Your task to perform on an android device: Go to sound settings Image 0: 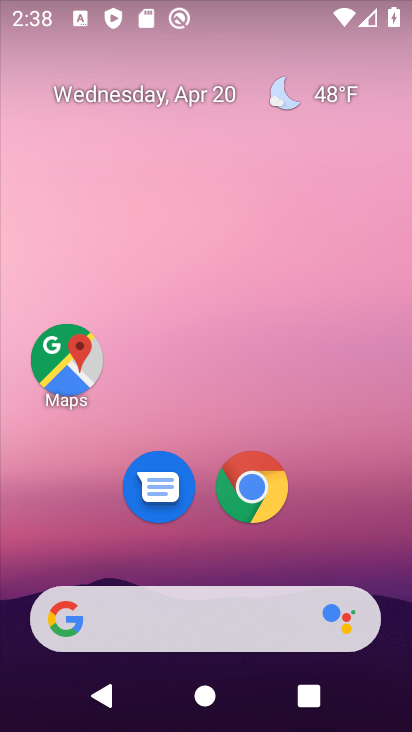
Step 0: drag from (223, 427) to (223, 218)
Your task to perform on an android device: Go to sound settings Image 1: 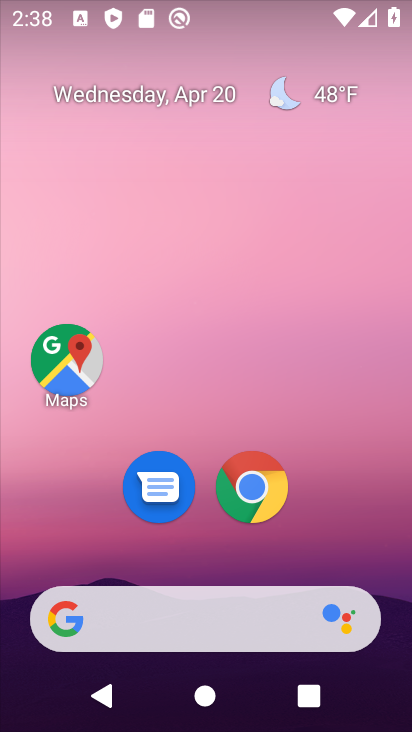
Step 1: drag from (207, 583) to (248, 126)
Your task to perform on an android device: Go to sound settings Image 2: 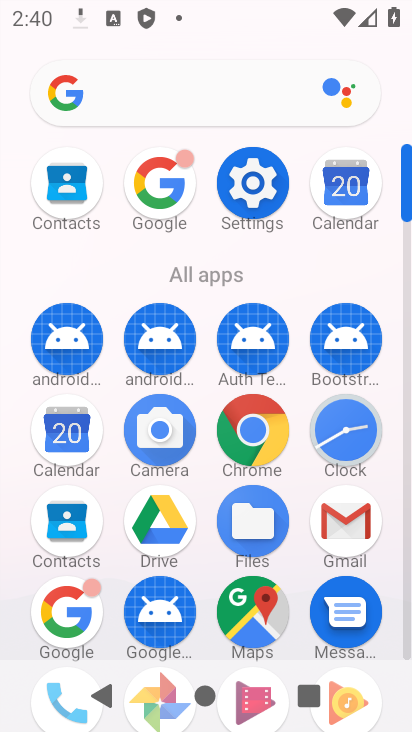
Step 2: click (270, 173)
Your task to perform on an android device: Go to sound settings Image 3: 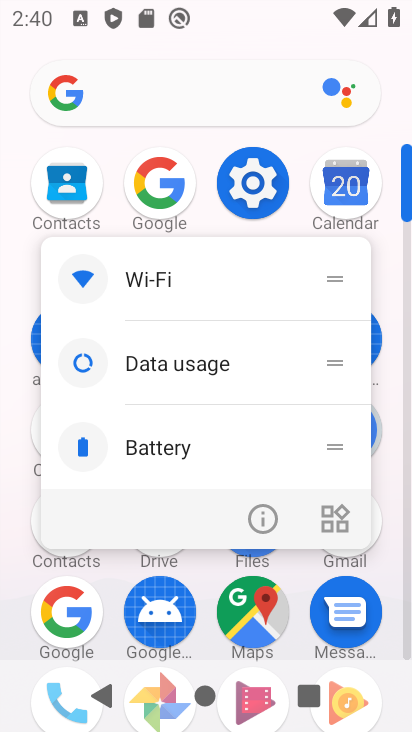
Step 3: click (263, 188)
Your task to perform on an android device: Go to sound settings Image 4: 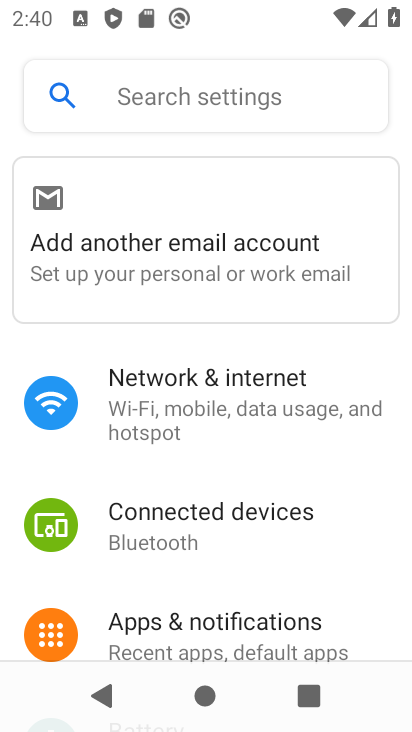
Step 4: drag from (165, 477) to (154, 265)
Your task to perform on an android device: Go to sound settings Image 5: 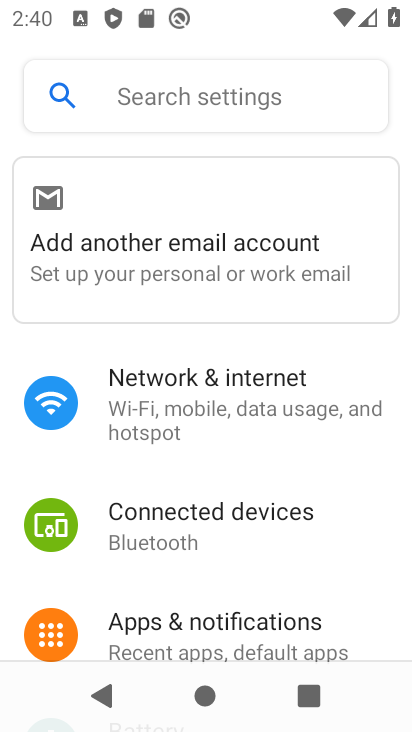
Step 5: drag from (184, 359) to (184, 313)
Your task to perform on an android device: Go to sound settings Image 6: 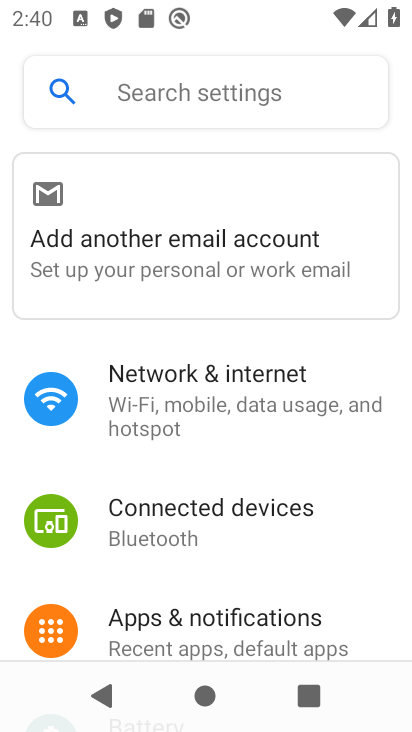
Step 6: drag from (226, 635) to (220, 402)
Your task to perform on an android device: Go to sound settings Image 7: 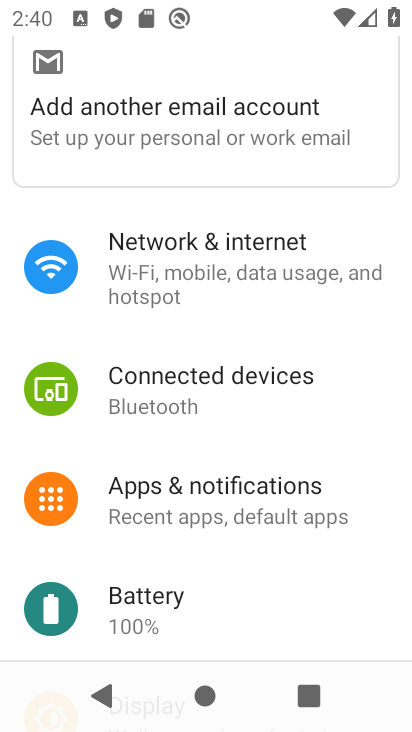
Step 7: drag from (194, 642) to (224, 365)
Your task to perform on an android device: Go to sound settings Image 8: 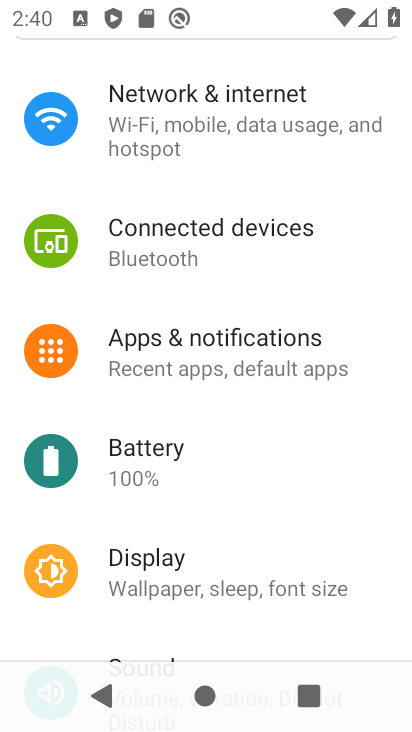
Step 8: drag from (181, 616) to (194, 230)
Your task to perform on an android device: Go to sound settings Image 9: 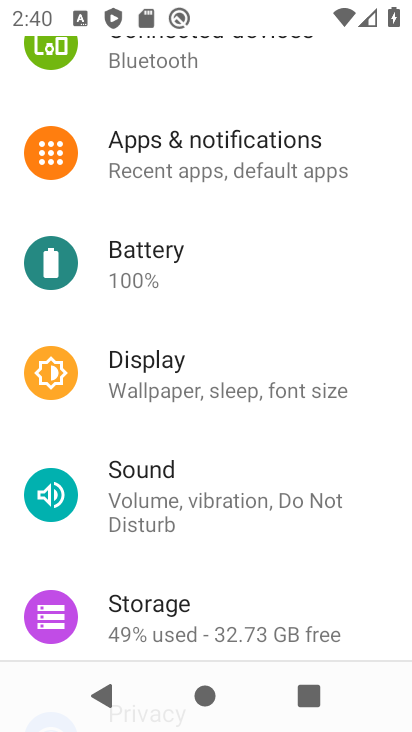
Step 9: click (164, 486)
Your task to perform on an android device: Go to sound settings Image 10: 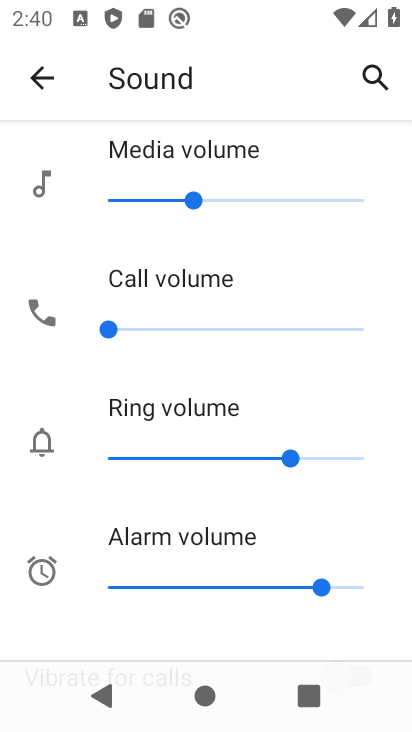
Step 10: task complete